Your task to perform on an android device: Search for razer deathadder on bestbuy, select the first entry, add it to the cart, then select checkout. Image 0: 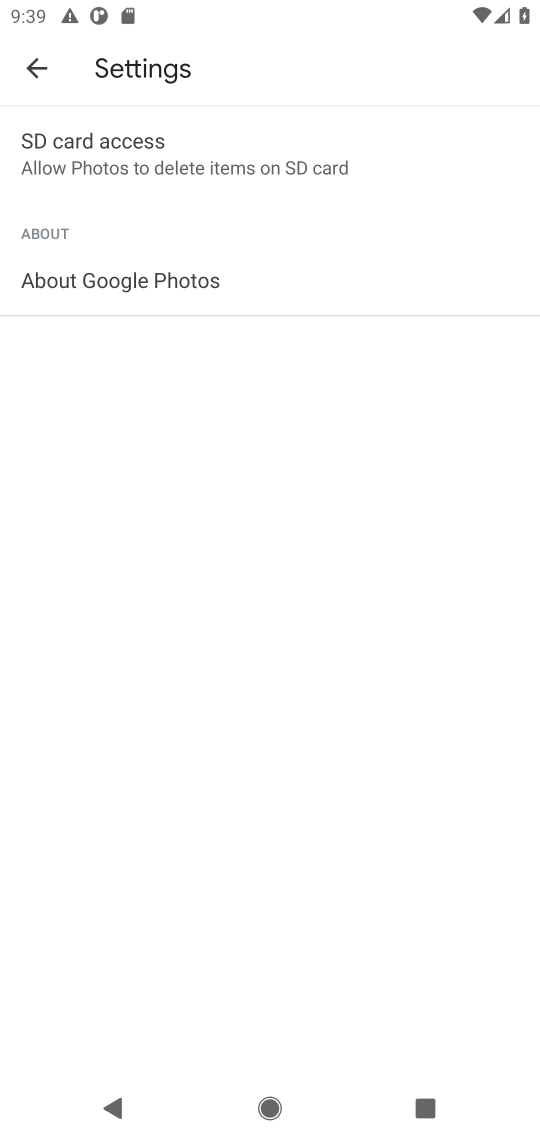
Step 0: press home button
Your task to perform on an android device: Search for razer deathadder on bestbuy, select the first entry, add it to the cart, then select checkout. Image 1: 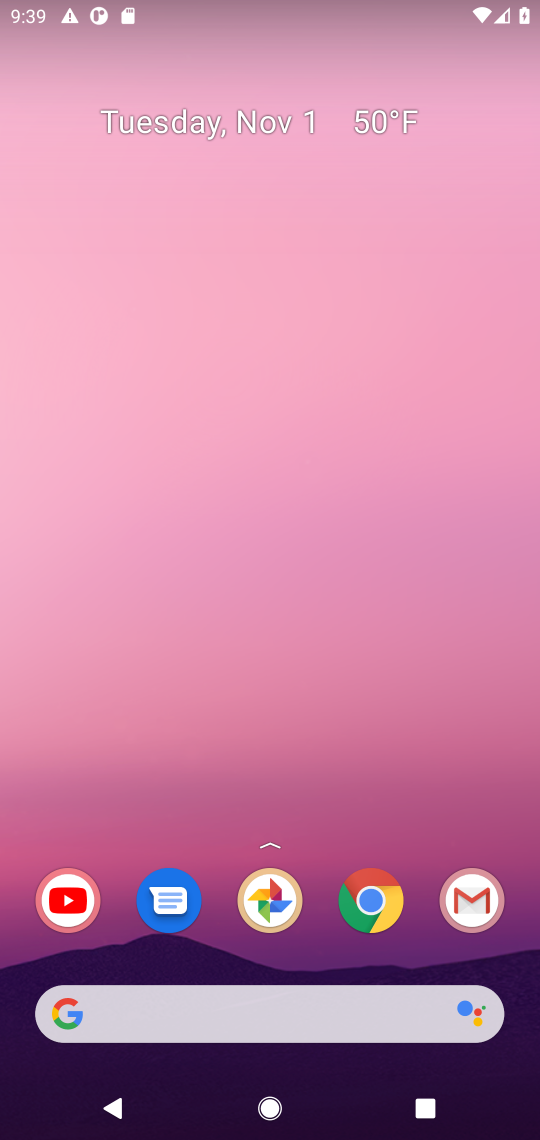
Step 1: click (358, 905)
Your task to perform on an android device: Search for razer deathadder on bestbuy, select the first entry, add it to the cart, then select checkout. Image 2: 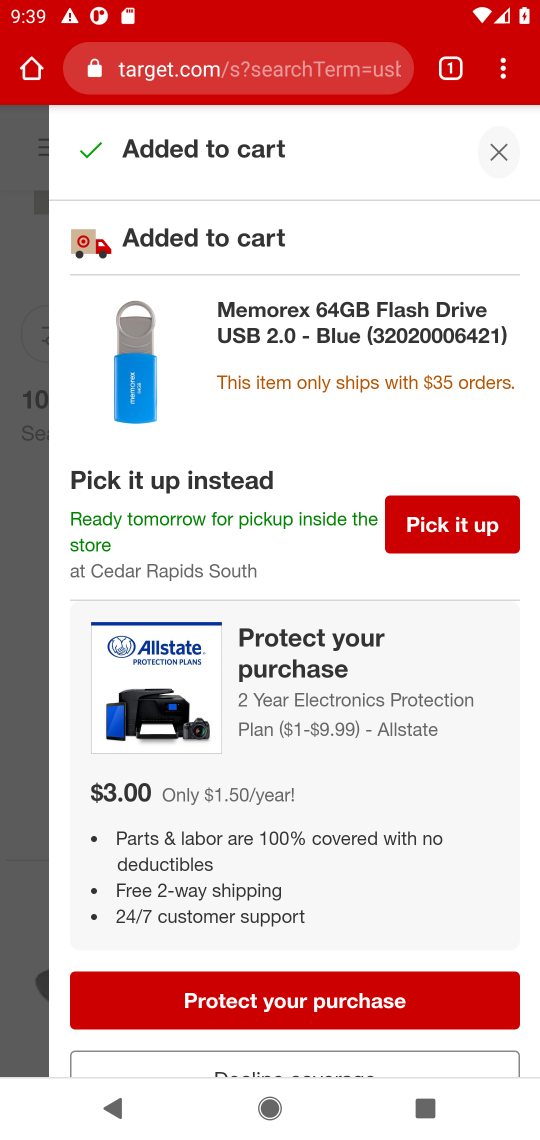
Step 2: click (262, 88)
Your task to perform on an android device: Search for razer deathadder on bestbuy, select the first entry, add it to the cart, then select checkout. Image 3: 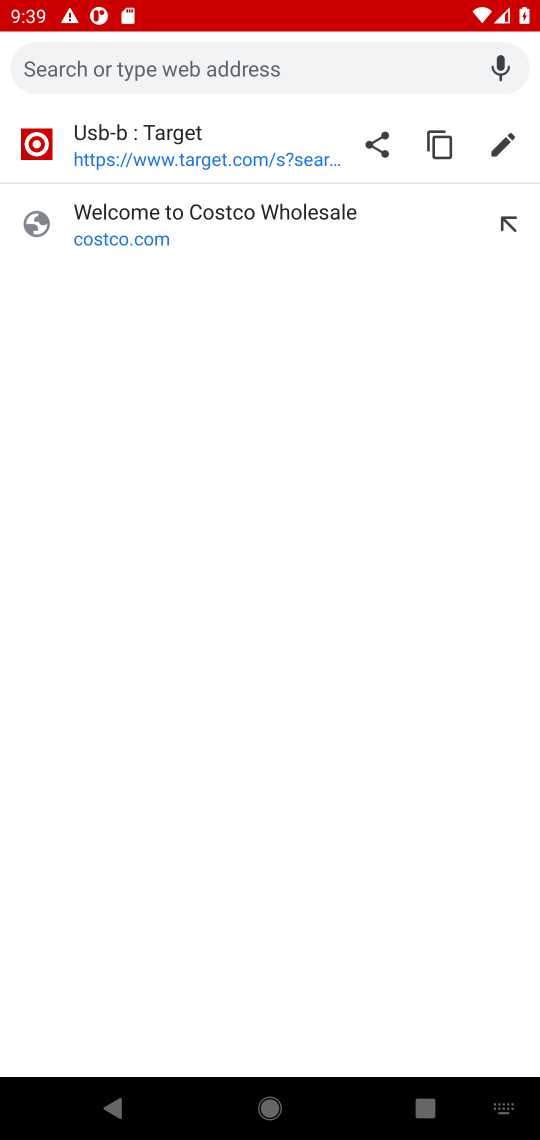
Step 3: type "bestbuy"
Your task to perform on an android device: Search for razer deathadder on bestbuy, select the first entry, add it to the cart, then select checkout. Image 4: 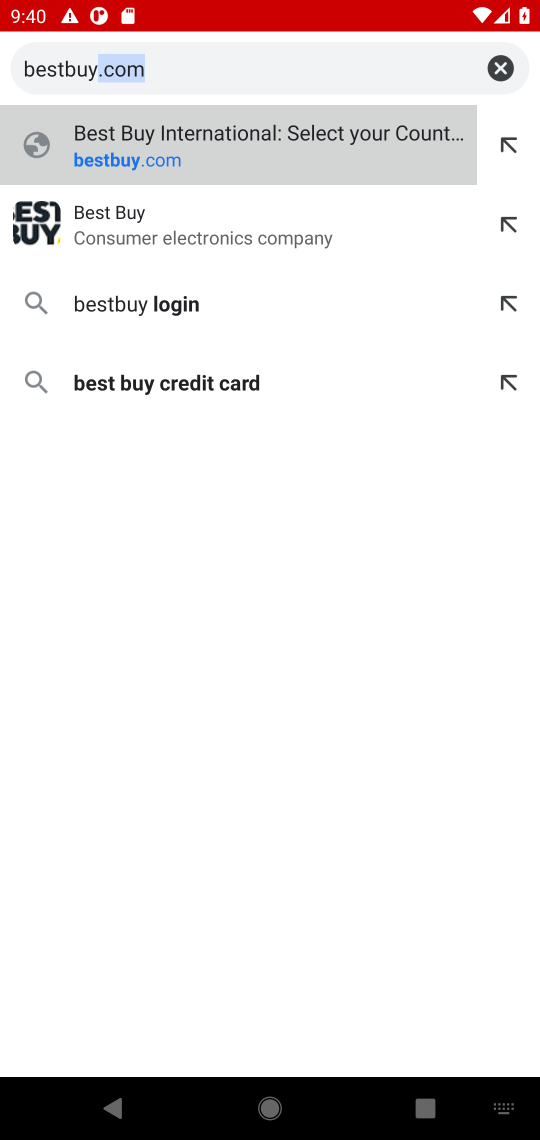
Step 4: click (53, 241)
Your task to perform on an android device: Search for razer deathadder on bestbuy, select the first entry, add it to the cart, then select checkout. Image 5: 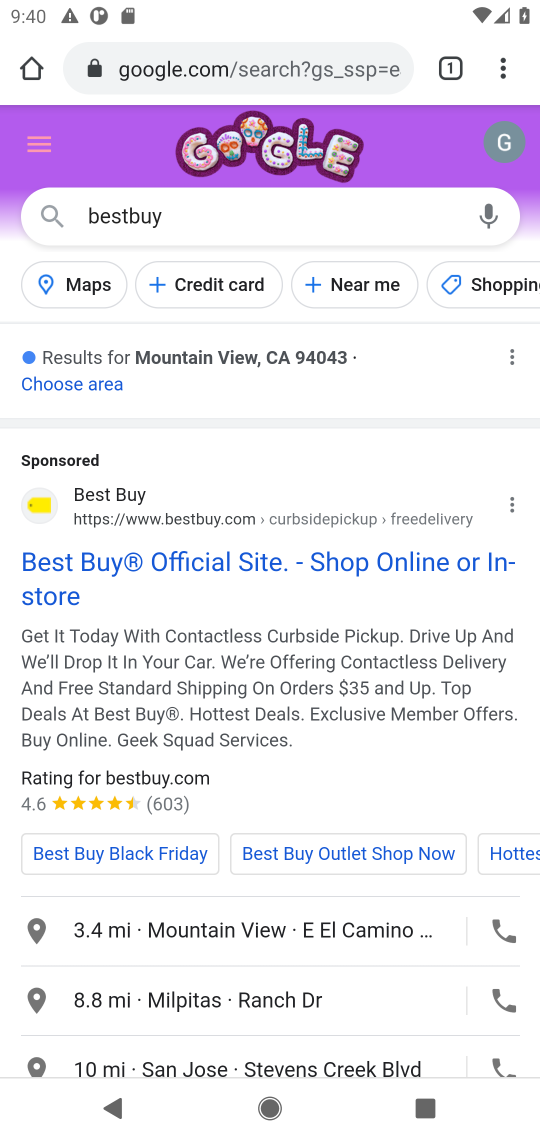
Step 5: click (102, 559)
Your task to perform on an android device: Search for razer deathadder on bestbuy, select the first entry, add it to the cart, then select checkout. Image 6: 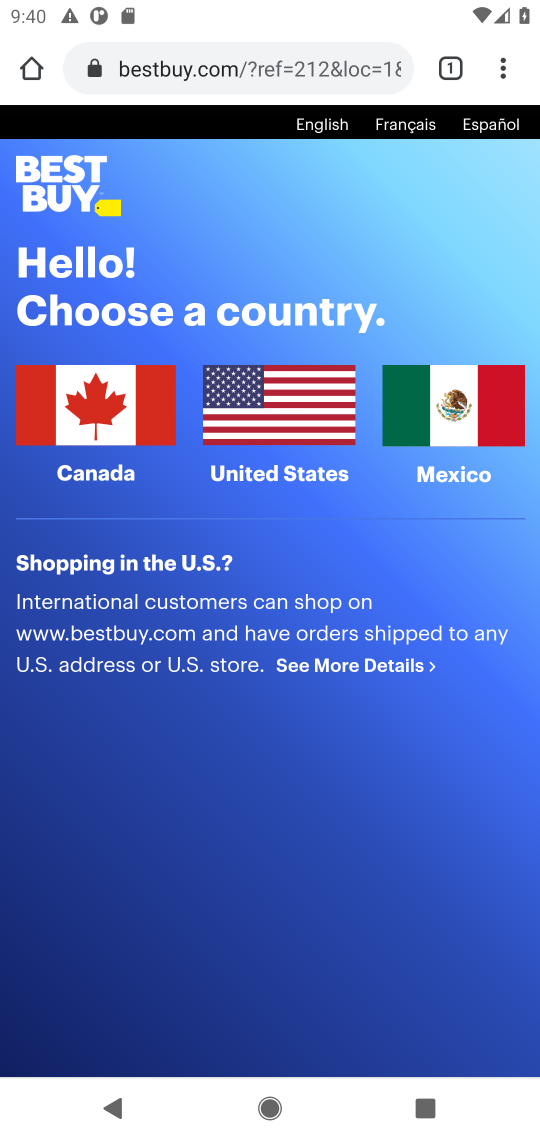
Step 6: click (232, 431)
Your task to perform on an android device: Search for razer deathadder on bestbuy, select the first entry, add it to the cart, then select checkout. Image 7: 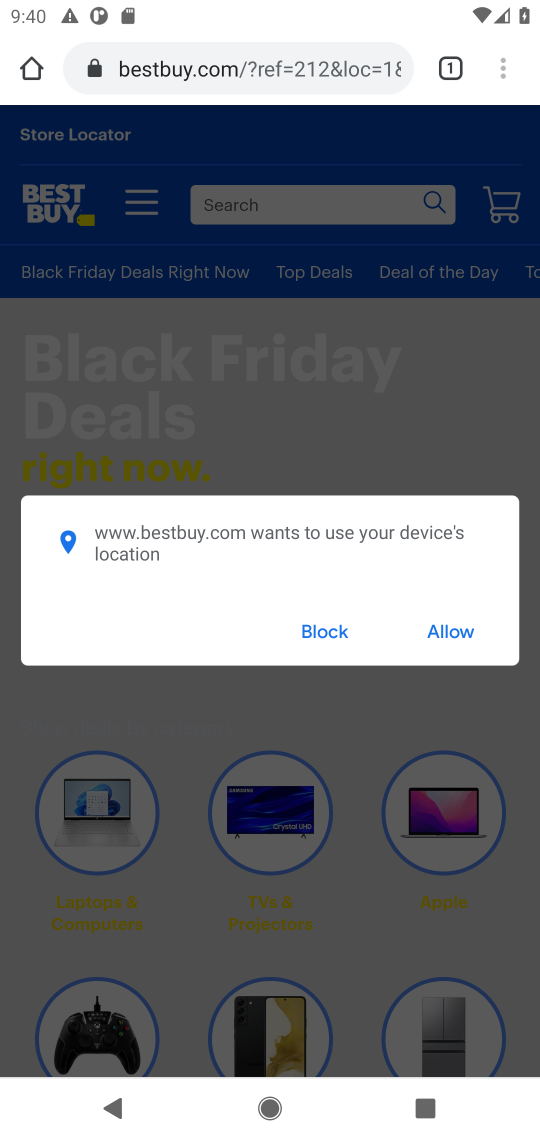
Step 7: click (455, 625)
Your task to perform on an android device: Search for razer deathadder on bestbuy, select the first entry, add it to the cart, then select checkout. Image 8: 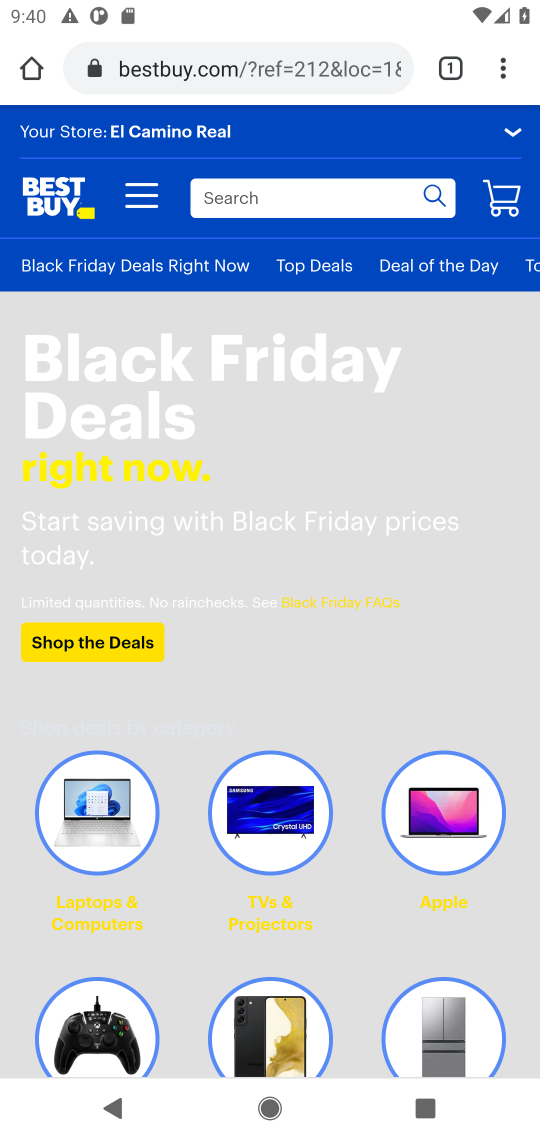
Step 8: click (217, 215)
Your task to perform on an android device: Search for razer deathadder on bestbuy, select the first entry, add it to the cart, then select checkout. Image 9: 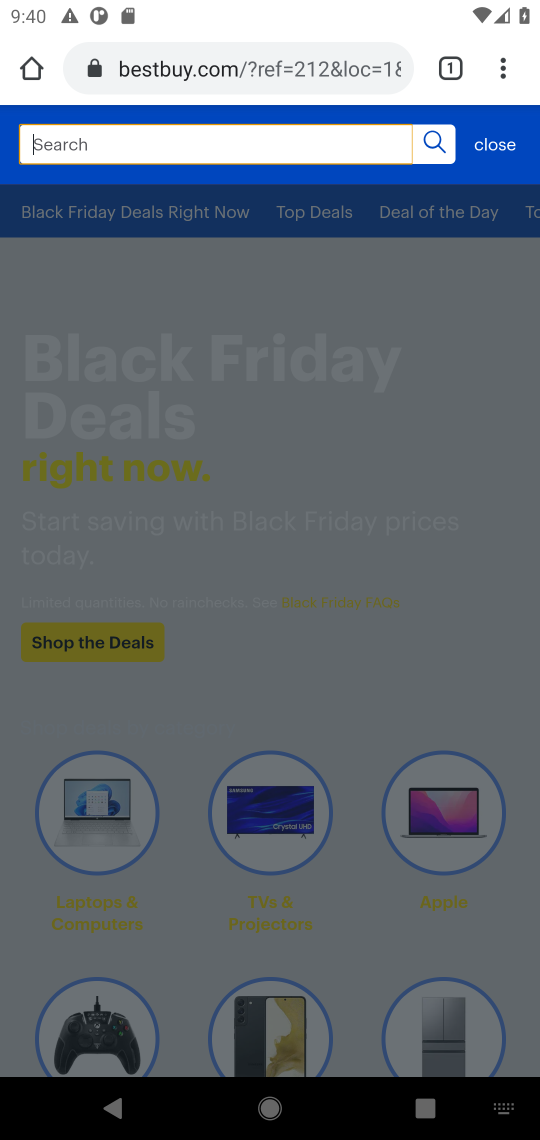
Step 9: type "razer deathadder"
Your task to perform on an android device: Search for razer deathadder on bestbuy, select the first entry, add it to the cart, then select checkout. Image 10: 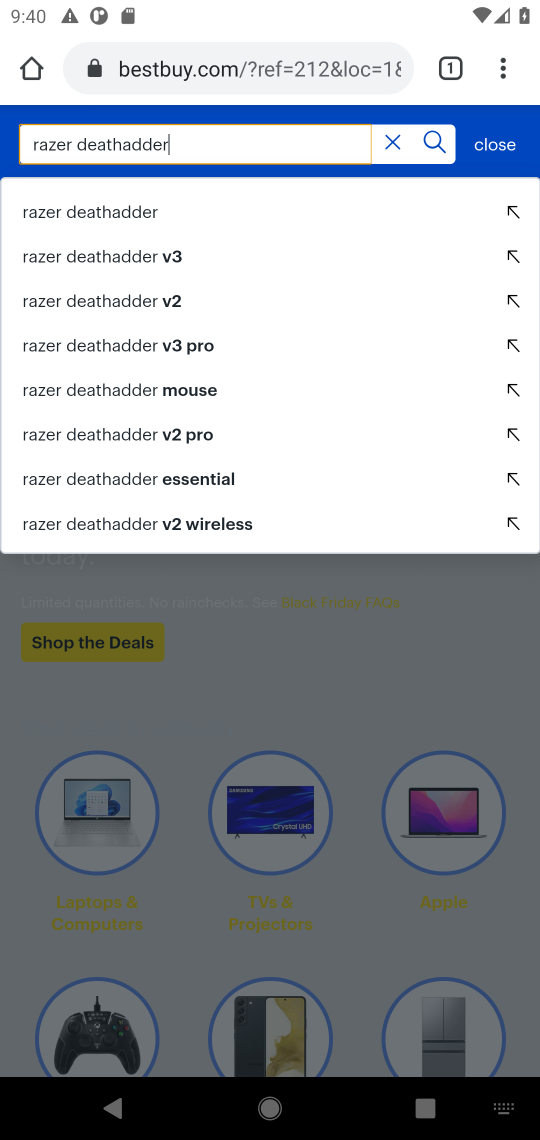
Step 10: click (438, 152)
Your task to perform on an android device: Search for razer deathadder on bestbuy, select the first entry, add it to the cart, then select checkout. Image 11: 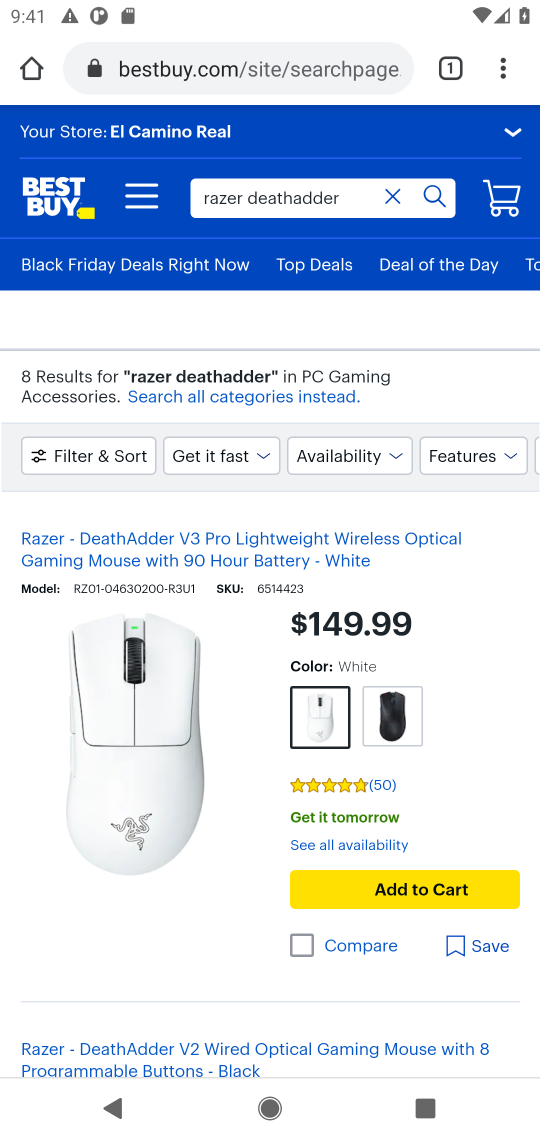
Step 11: click (446, 897)
Your task to perform on an android device: Search for razer deathadder on bestbuy, select the first entry, add it to the cart, then select checkout. Image 12: 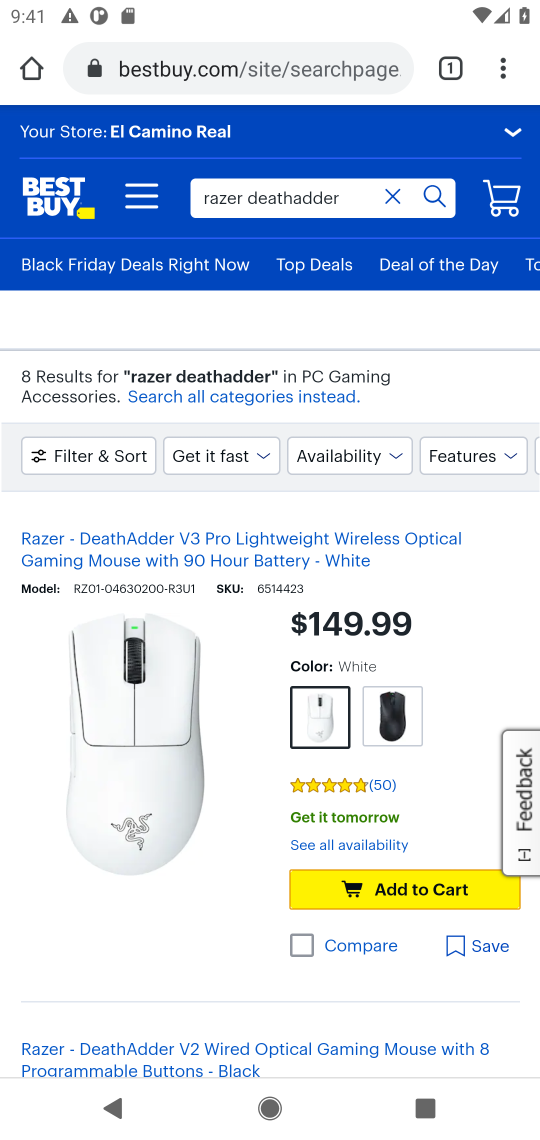
Step 12: click (446, 897)
Your task to perform on an android device: Search for razer deathadder on bestbuy, select the first entry, add it to the cart, then select checkout. Image 13: 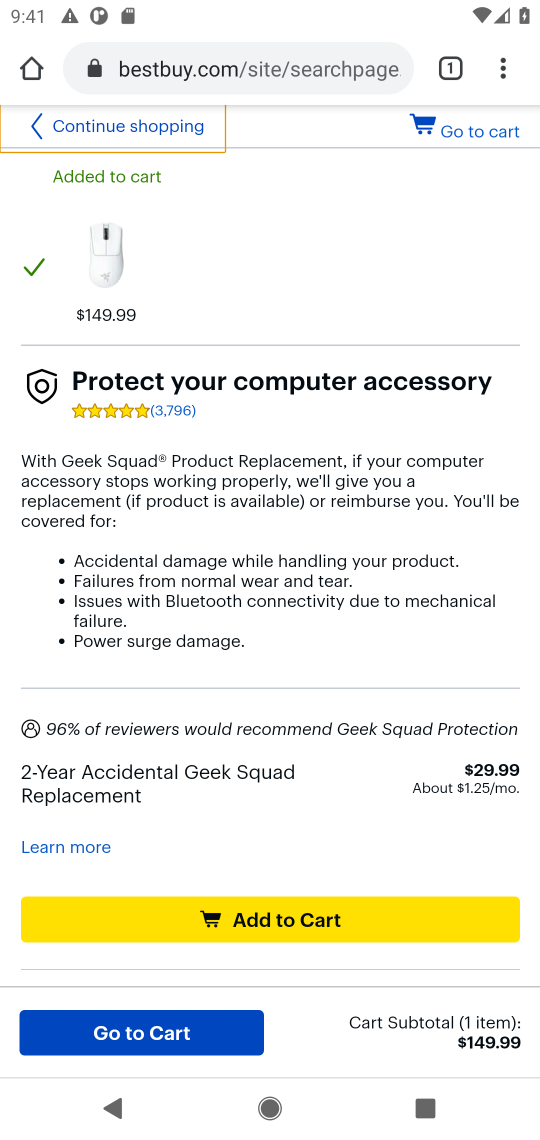
Step 13: click (85, 1046)
Your task to perform on an android device: Search for razer deathadder on bestbuy, select the first entry, add it to the cart, then select checkout. Image 14: 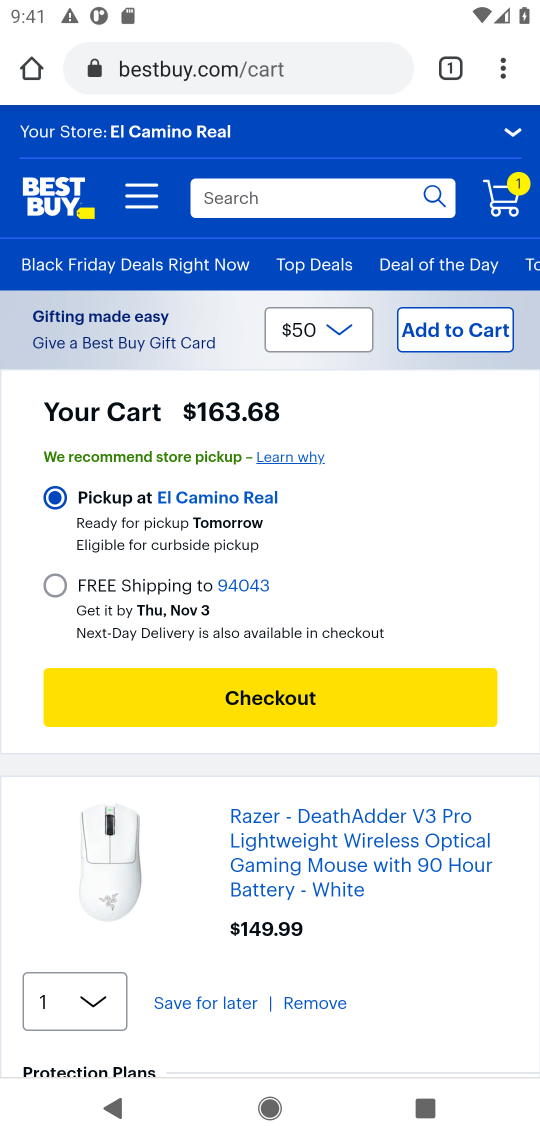
Step 14: drag from (140, 1048) to (130, 834)
Your task to perform on an android device: Search for razer deathadder on bestbuy, select the first entry, add it to the cart, then select checkout. Image 15: 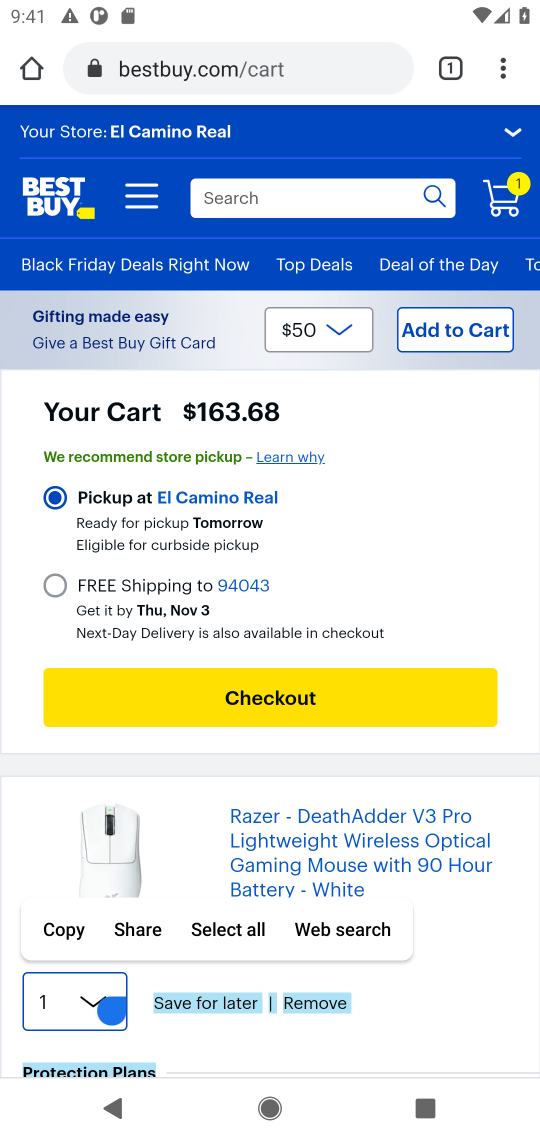
Step 15: click (179, 706)
Your task to perform on an android device: Search for razer deathadder on bestbuy, select the first entry, add it to the cart, then select checkout. Image 16: 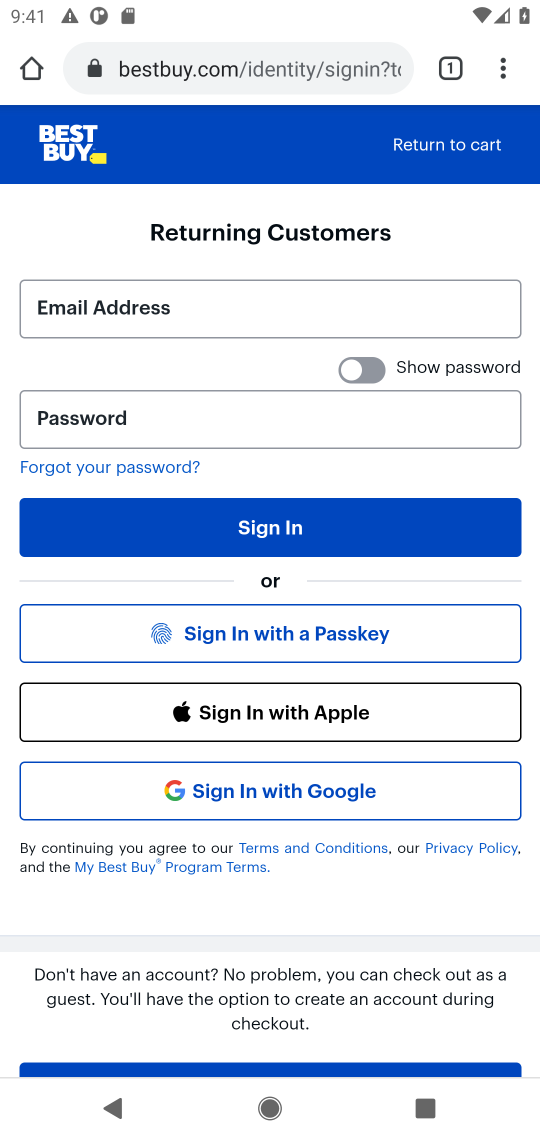
Step 16: task complete